Your task to perform on an android device: turn notification dots on Image 0: 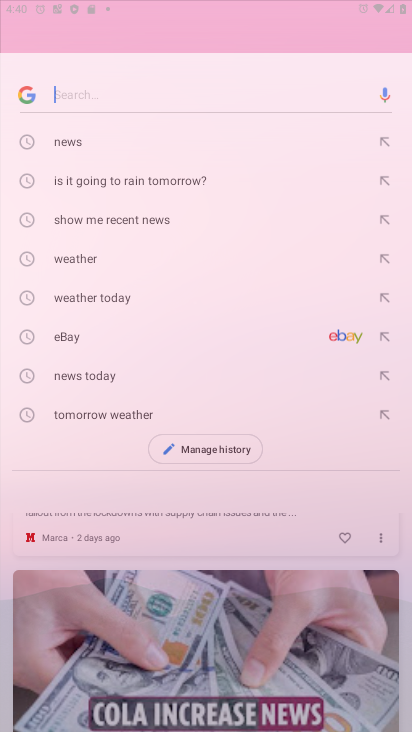
Step 0: press home button
Your task to perform on an android device: turn notification dots on Image 1: 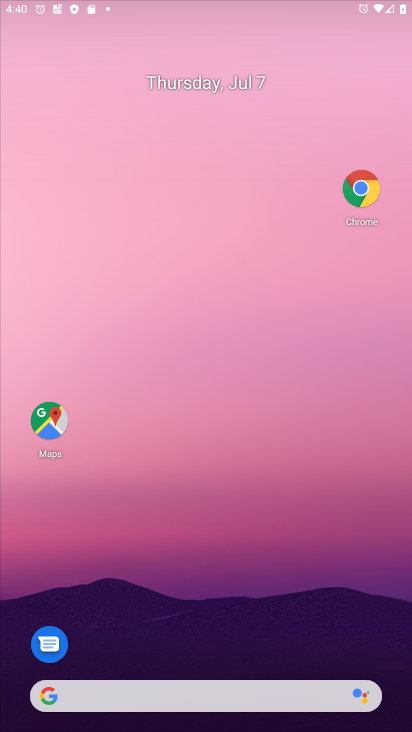
Step 1: drag from (271, 654) to (335, 106)
Your task to perform on an android device: turn notification dots on Image 2: 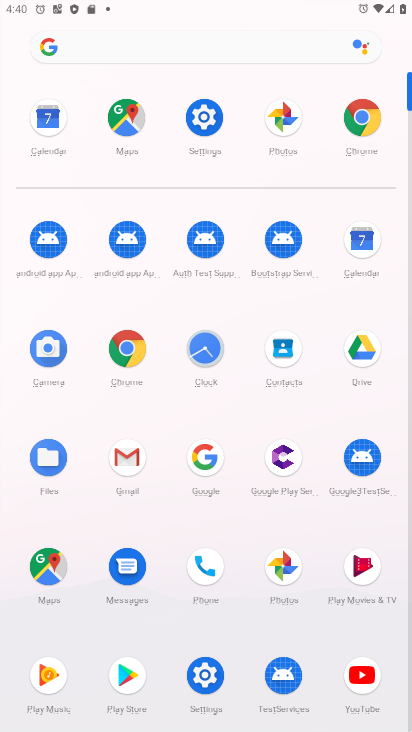
Step 2: click (196, 120)
Your task to perform on an android device: turn notification dots on Image 3: 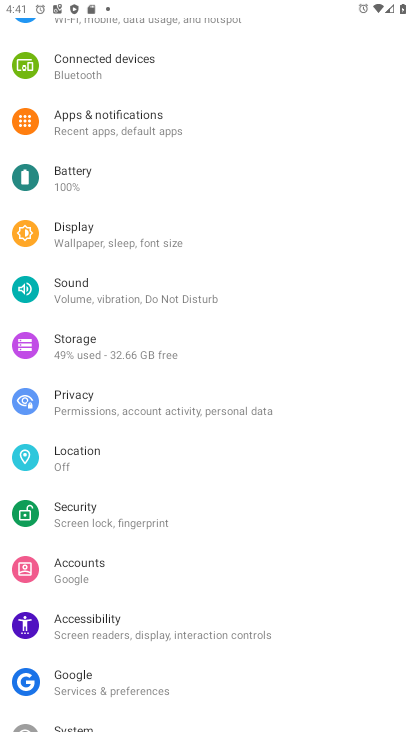
Step 3: click (114, 134)
Your task to perform on an android device: turn notification dots on Image 4: 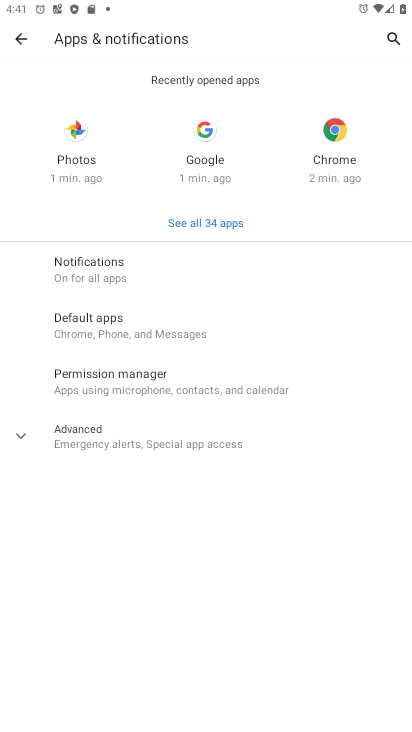
Step 4: click (106, 275)
Your task to perform on an android device: turn notification dots on Image 5: 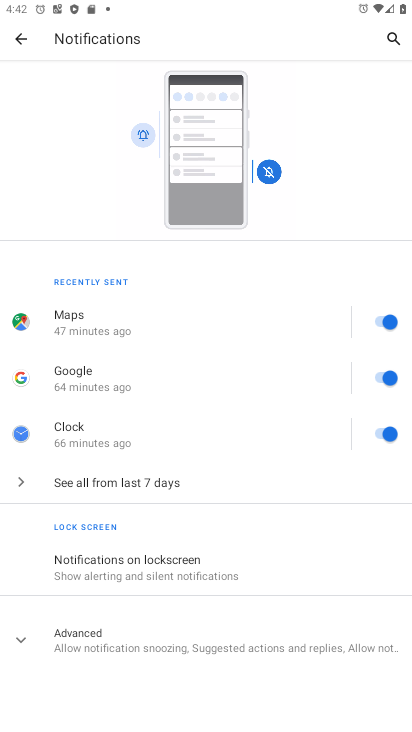
Step 5: click (168, 568)
Your task to perform on an android device: turn notification dots on Image 6: 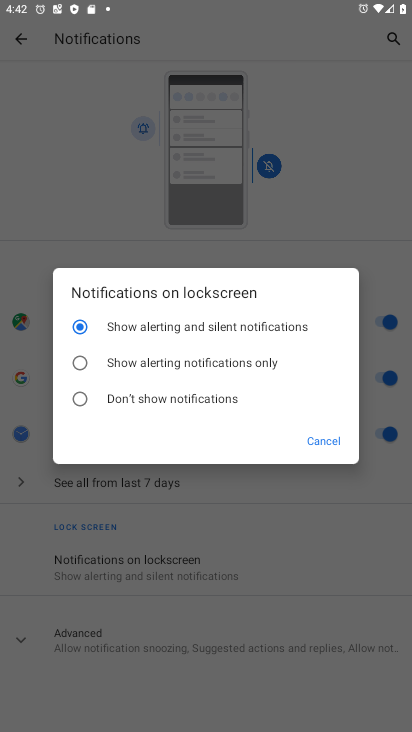
Step 6: click (302, 441)
Your task to perform on an android device: turn notification dots on Image 7: 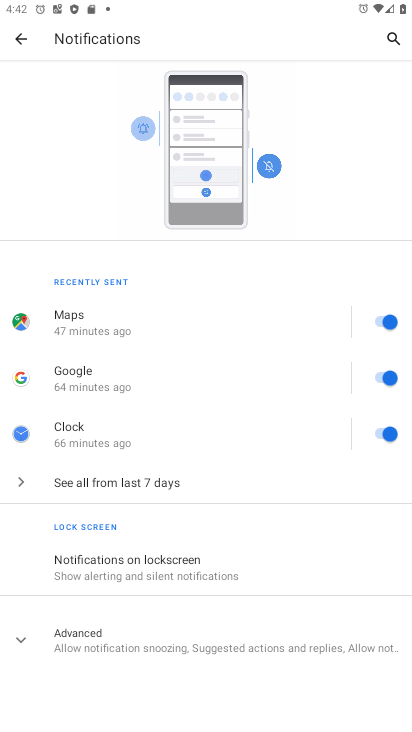
Step 7: click (188, 671)
Your task to perform on an android device: turn notification dots on Image 8: 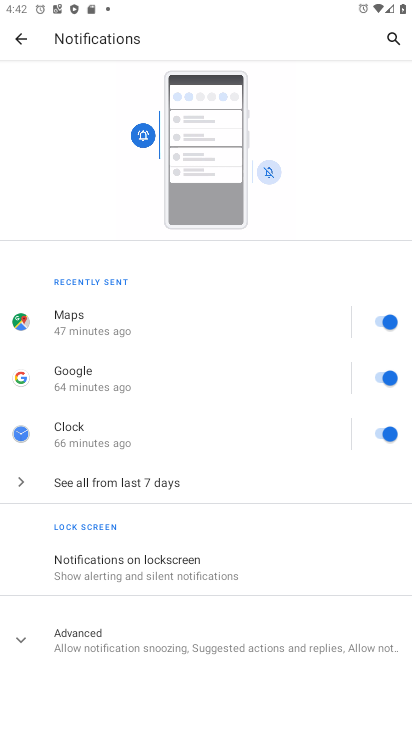
Step 8: click (140, 636)
Your task to perform on an android device: turn notification dots on Image 9: 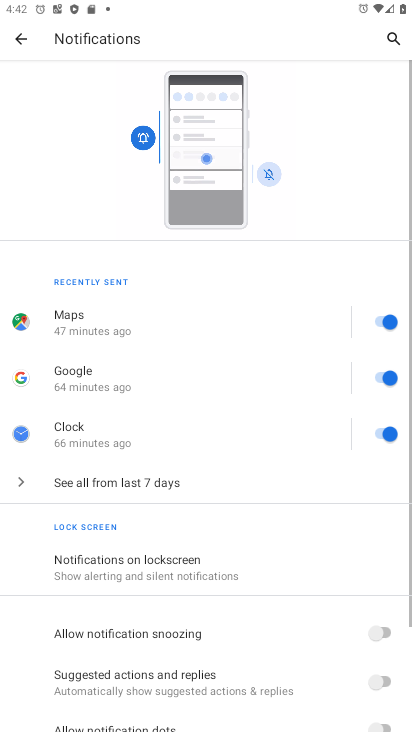
Step 9: drag from (185, 663) to (342, 121)
Your task to perform on an android device: turn notification dots on Image 10: 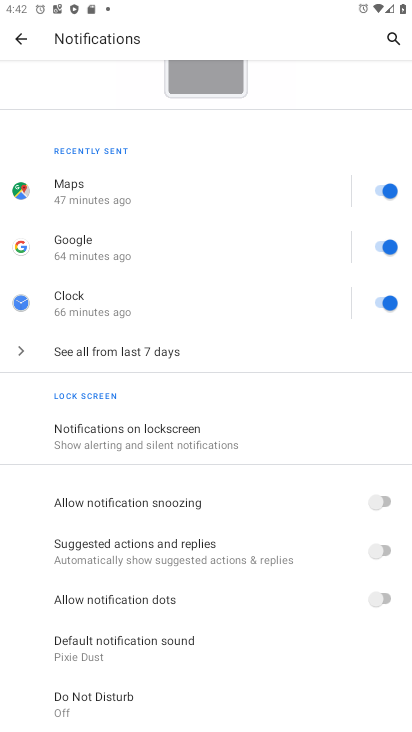
Step 10: click (166, 604)
Your task to perform on an android device: turn notification dots on Image 11: 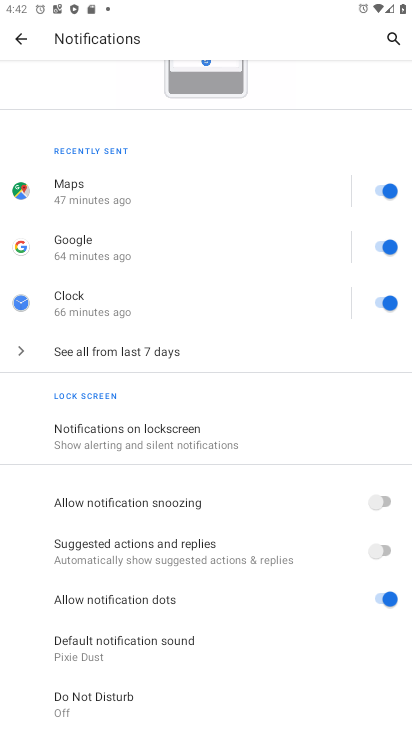
Step 11: task complete